Your task to perform on an android device: turn pop-ups on in chrome Image 0: 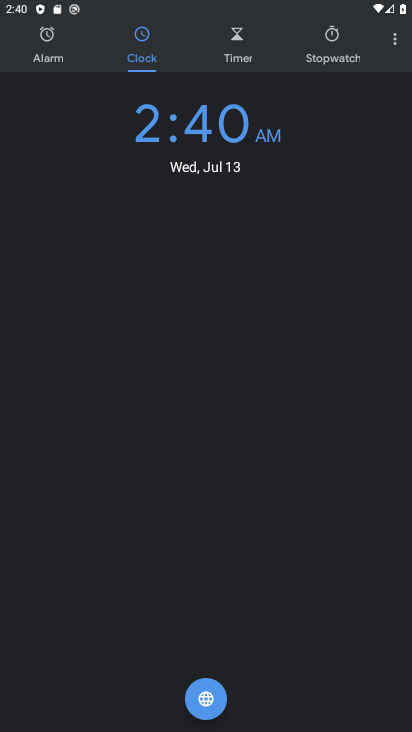
Step 0: press home button
Your task to perform on an android device: turn pop-ups on in chrome Image 1: 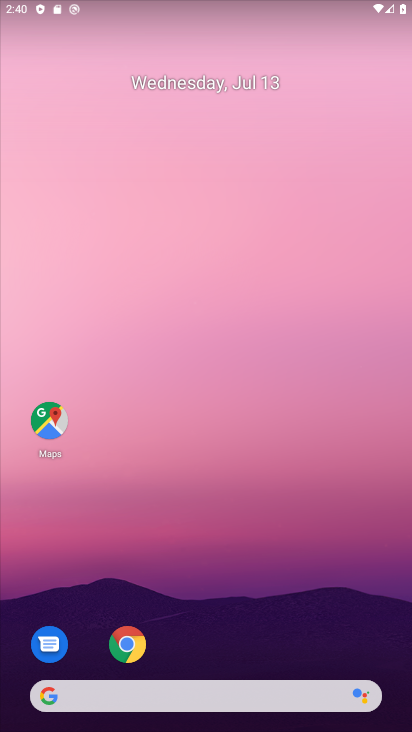
Step 1: click (126, 643)
Your task to perform on an android device: turn pop-ups on in chrome Image 2: 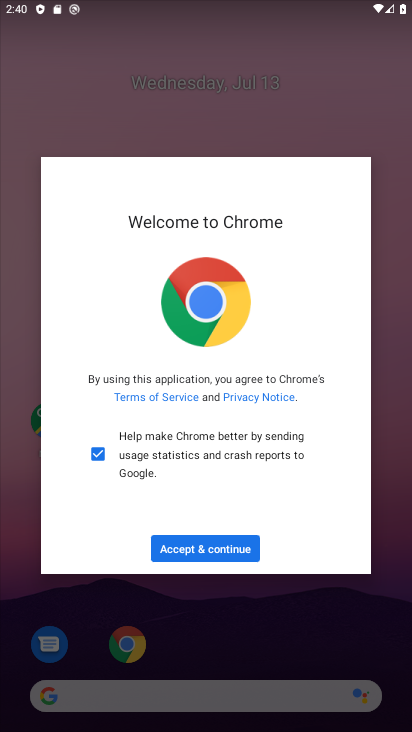
Step 2: click (200, 545)
Your task to perform on an android device: turn pop-ups on in chrome Image 3: 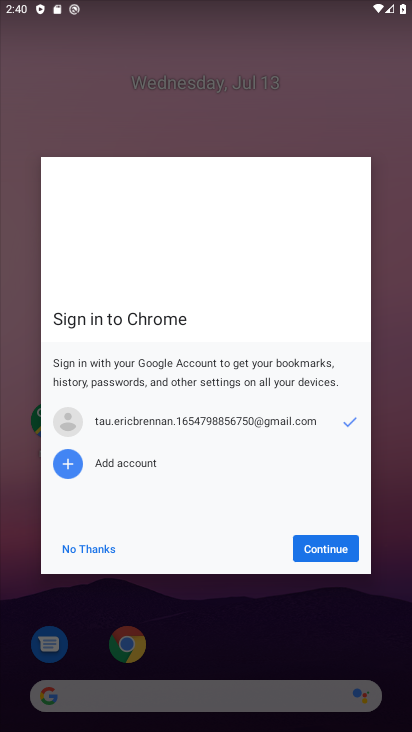
Step 3: click (315, 546)
Your task to perform on an android device: turn pop-ups on in chrome Image 4: 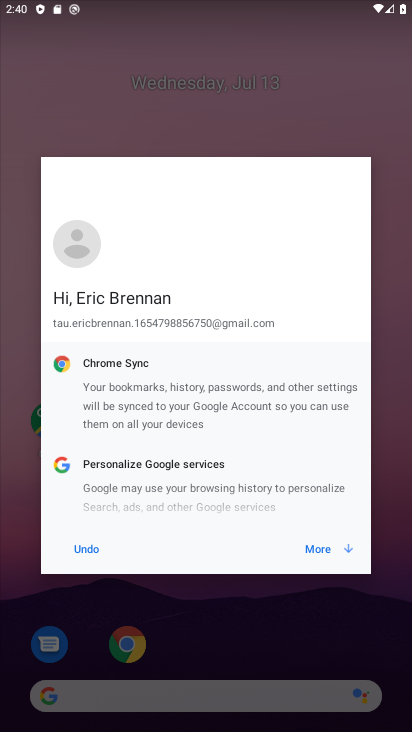
Step 4: click (315, 546)
Your task to perform on an android device: turn pop-ups on in chrome Image 5: 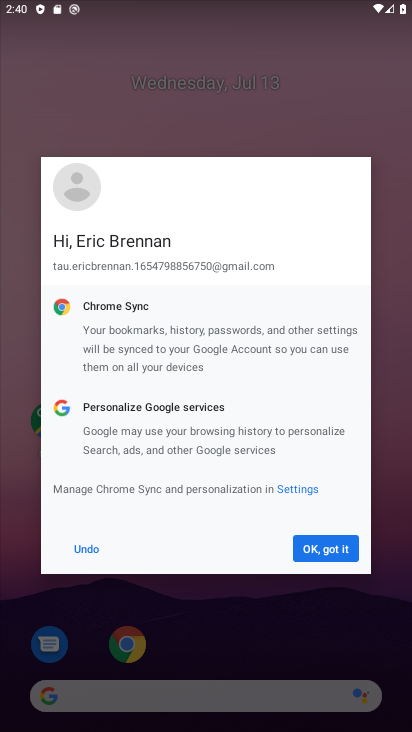
Step 5: click (315, 546)
Your task to perform on an android device: turn pop-ups on in chrome Image 6: 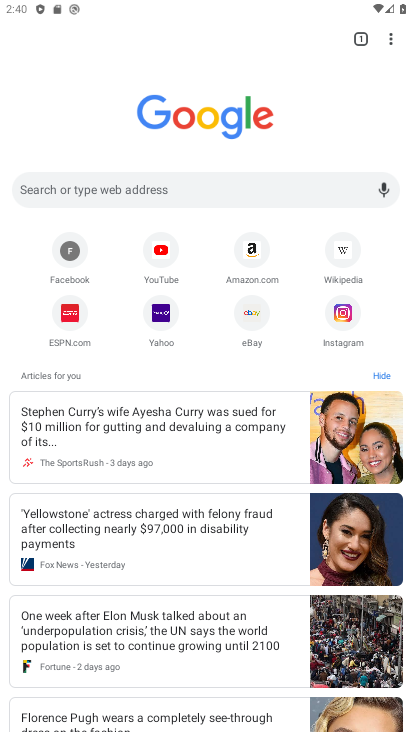
Step 6: click (389, 39)
Your task to perform on an android device: turn pop-ups on in chrome Image 7: 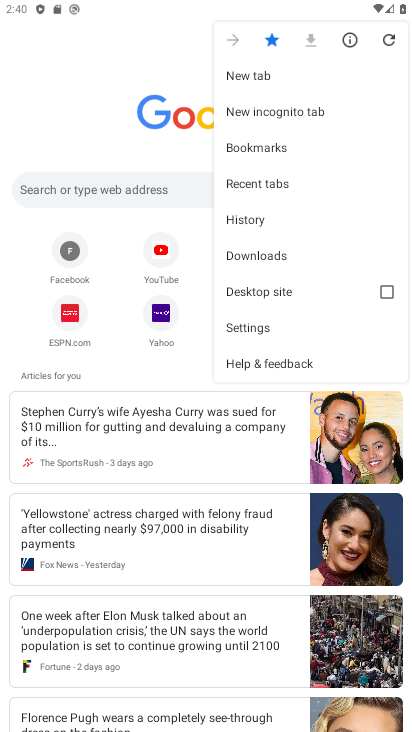
Step 7: click (246, 326)
Your task to perform on an android device: turn pop-ups on in chrome Image 8: 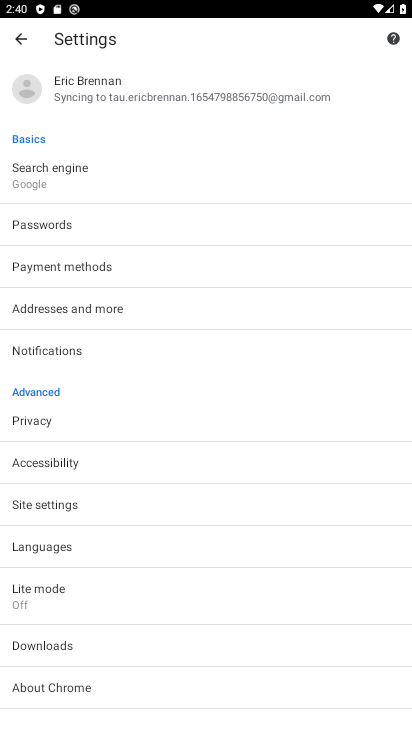
Step 8: click (66, 505)
Your task to perform on an android device: turn pop-ups on in chrome Image 9: 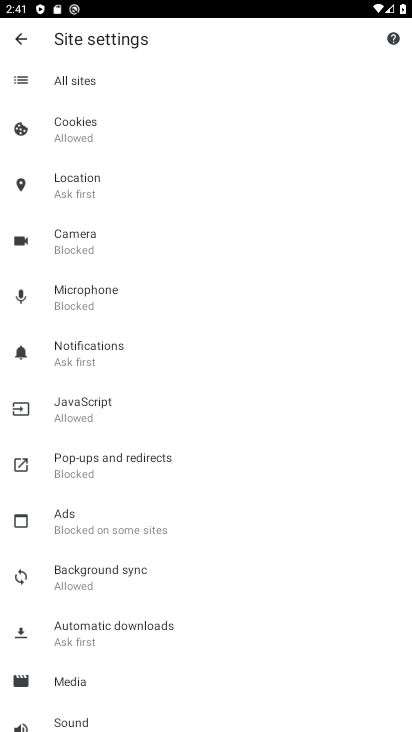
Step 9: click (131, 461)
Your task to perform on an android device: turn pop-ups on in chrome Image 10: 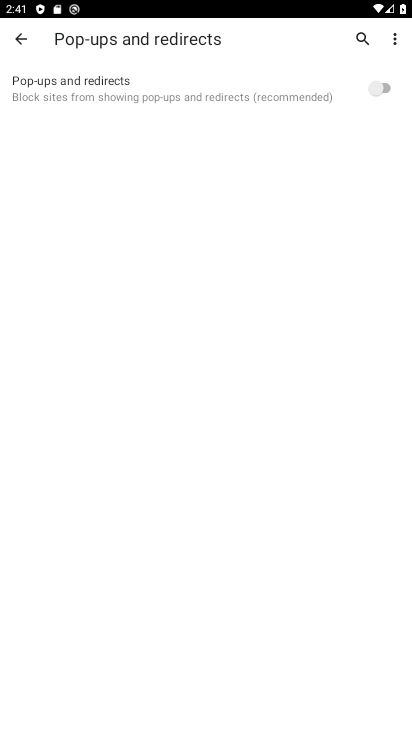
Step 10: click (377, 89)
Your task to perform on an android device: turn pop-ups on in chrome Image 11: 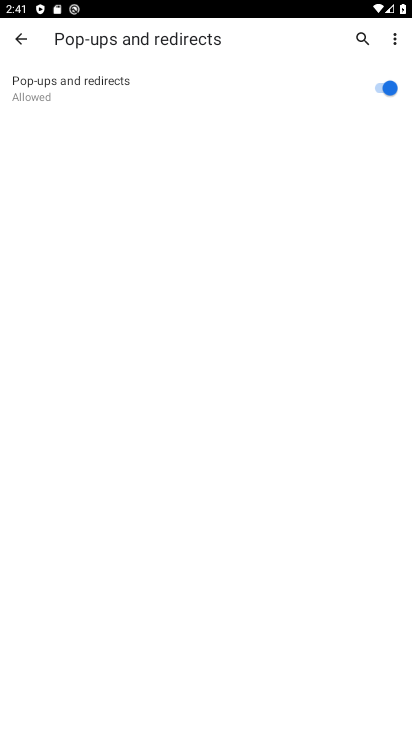
Step 11: task complete